Your task to perform on an android device: Go to Yahoo.com Image 0: 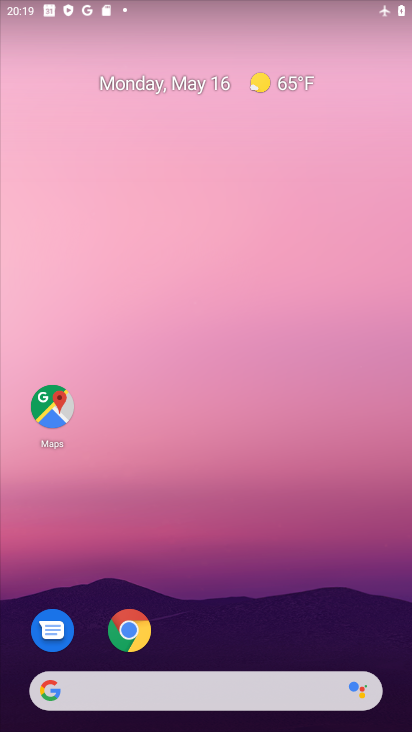
Step 0: click (125, 630)
Your task to perform on an android device: Go to Yahoo.com Image 1: 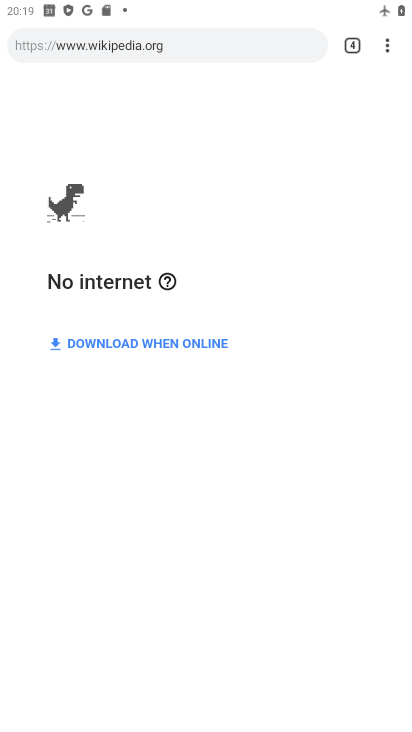
Step 1: click (353, 42)
Your task to perform on an android device: Go to Yahoo.com Image 2: 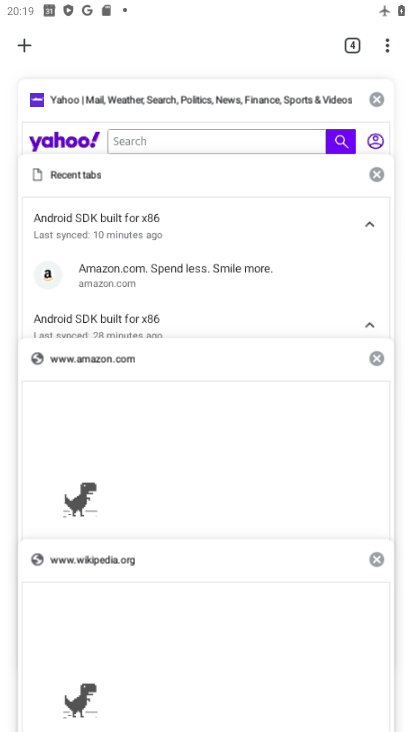
Step 2: click (27, 43)
Your task to perform on an android device: Go to Yahoo.com Image 3: 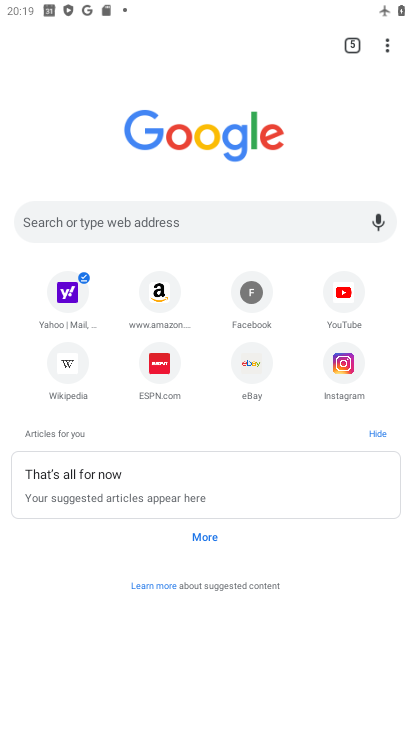
Step 3: click (78, 296)
Your task to perform on an android device: Go to Yahoo.com Image 4: 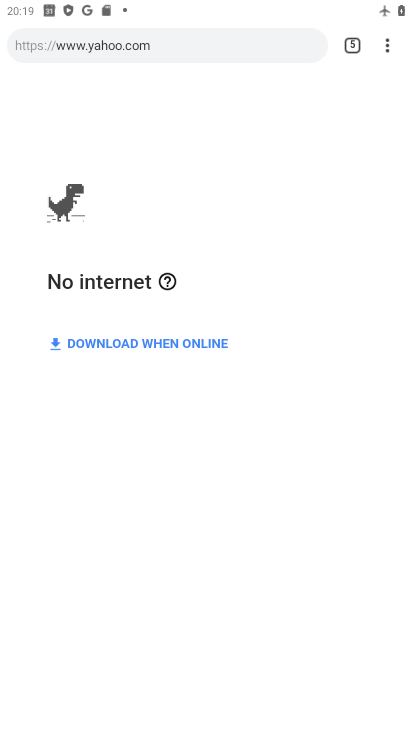
Step 4: task complete